Your task to perform on an android device: turn off wifi Image 0: 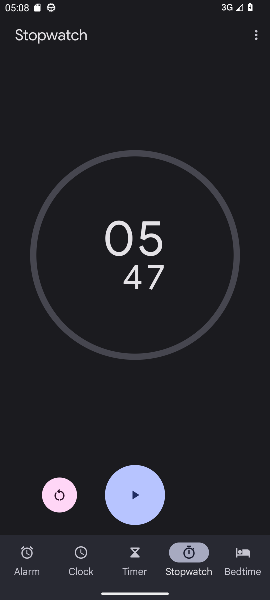
Step 0: press home button
Your task to perform on an android device: turn off wifi Image 1: 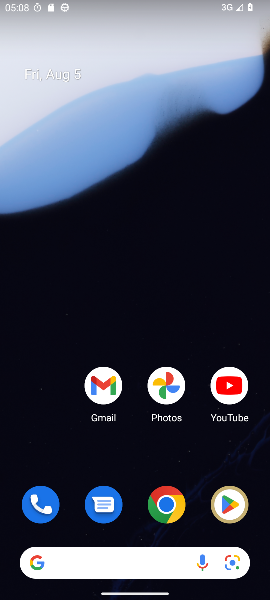
Step 1: task complete